Your task to perform on an android device: Go to ESPN.com Image 0: 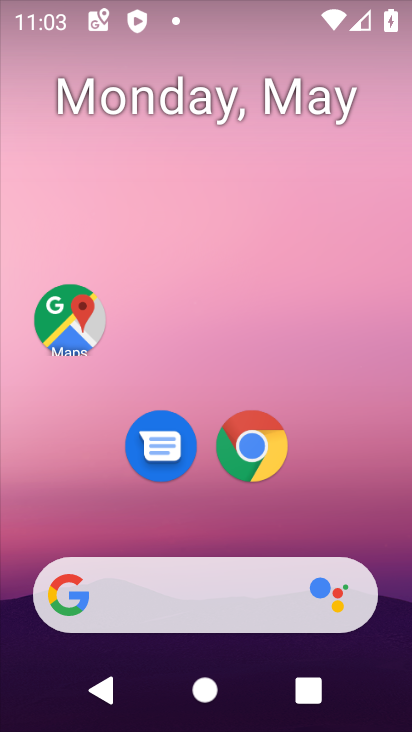
Step 0: drag from (342, 499) to (302, 81)
Your task to perform on an android device: Go to ESPN.com Image 1: 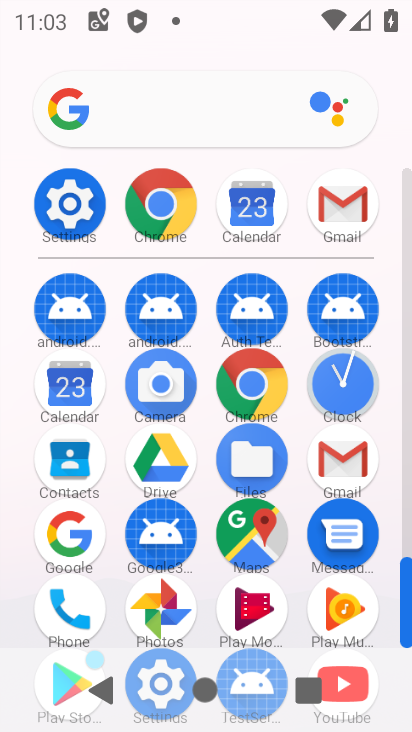
Step 1: click (174, 202)
Your task to perform on an android device: Go to ESPN.com Image 2: 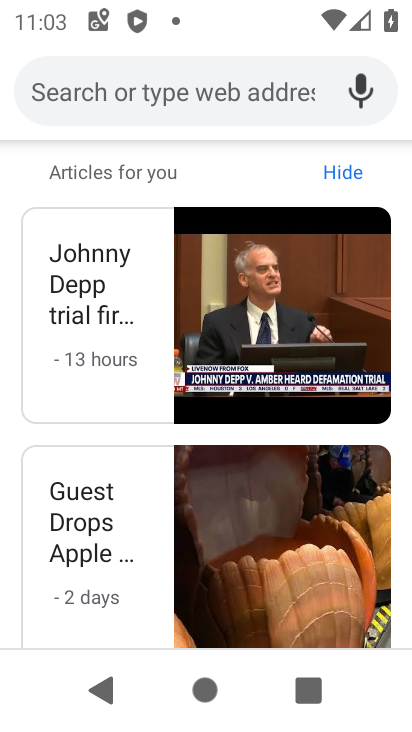
Step 2: click (155, 68)
Your task to perform on an android device: Go to ESPN.com Image 3: 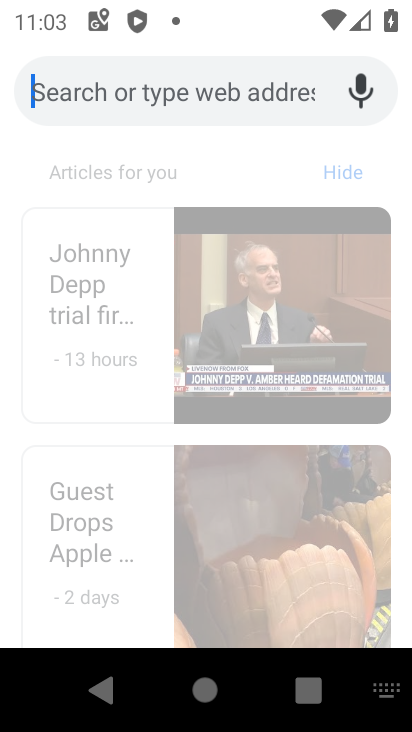
Step 3: press back button
Your task to perform on an android device: Go to ESPN.com Image 4: 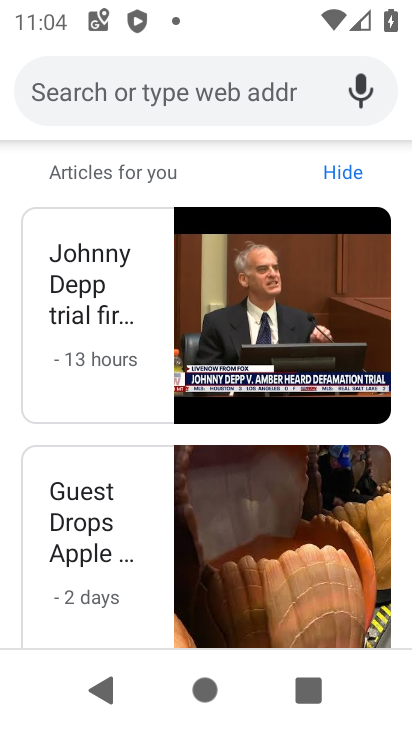
Step 4: drag from (149, 192) to (176, 567)
Your task to perform on an android device: Go to ESPN.com Image 5: 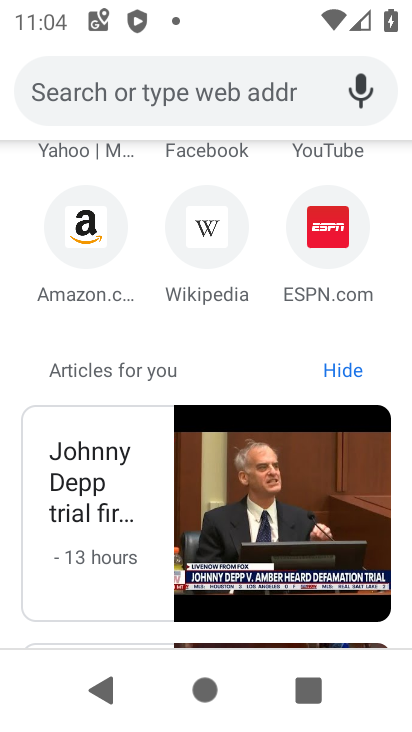
Step 5: drag from (97, 337) to (150, 589)
Your task to perform on an android device: Go to ESPN.com Image 6: 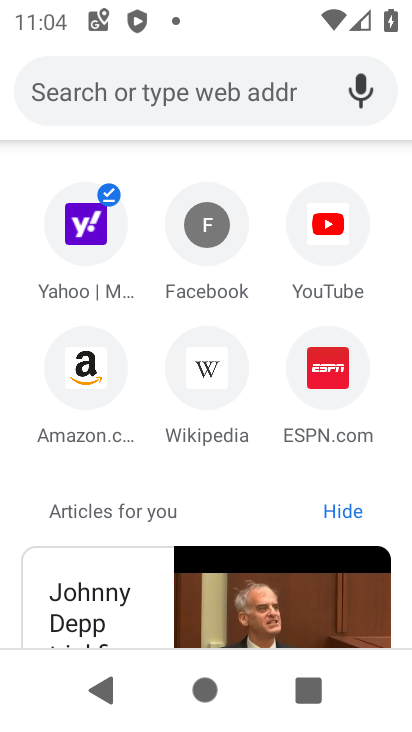
Step 6: click (313, 405)
Your task to perform on an android device: Go to ESPN.com Image 7: 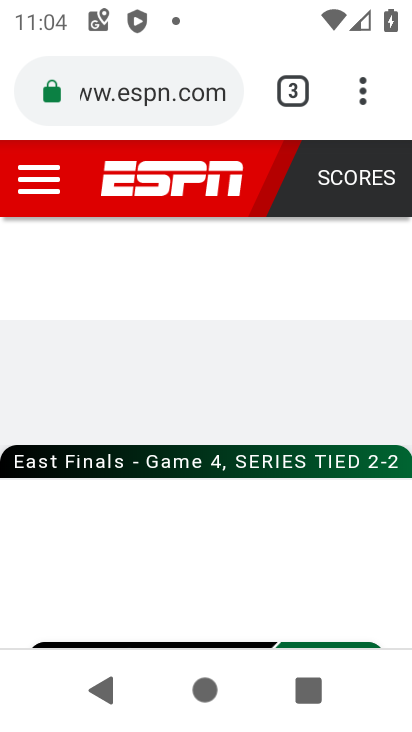
Step 7: task complete